Your task to perform on an android device: change your default location settings in chrome Image 0: 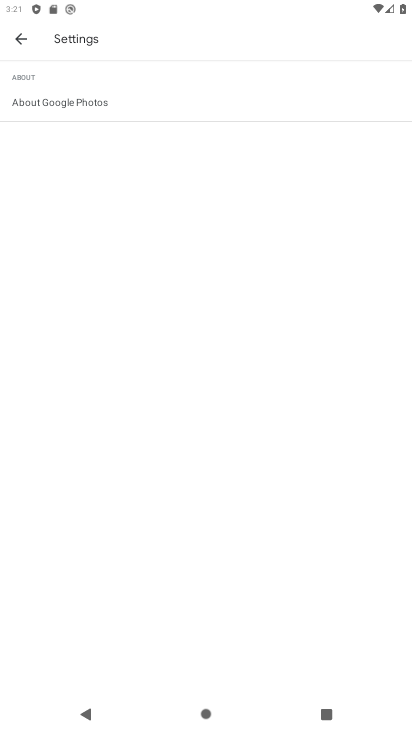
Step 0: press home button
Your task to perform on an android device: change your default location settings in chrome Image 1: 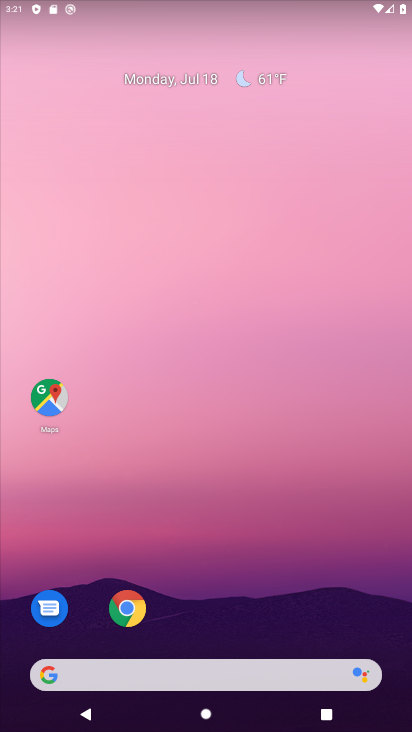
Step 1: drag from (294, 627) to (245, 92)
Your task to perform on an android device: change your default location settings in chrome Image 2: 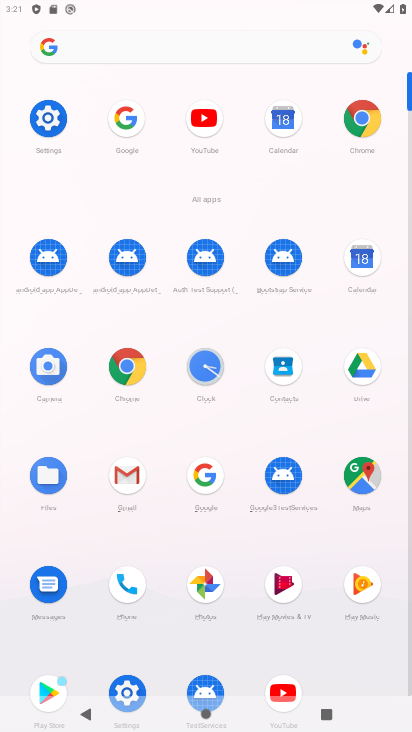
Step 2: click (124, 367)
Your task to perform on an android device: change your default location settings in chrome Image 3: 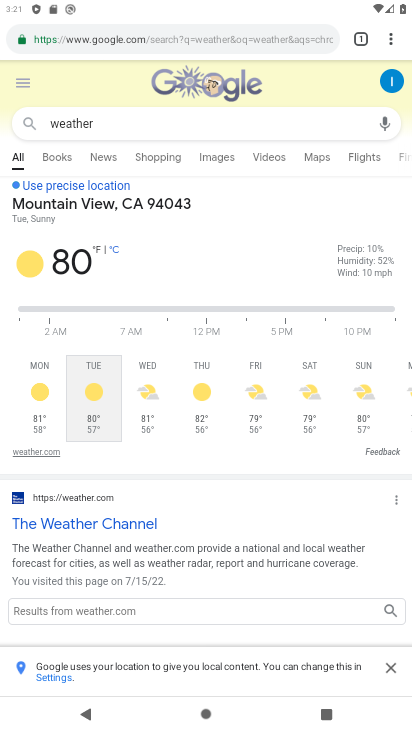
Step 3: drag from (392, 33) to (249, 428)
Your task to perform on an android device: change your default location settings in chrome Image 4: 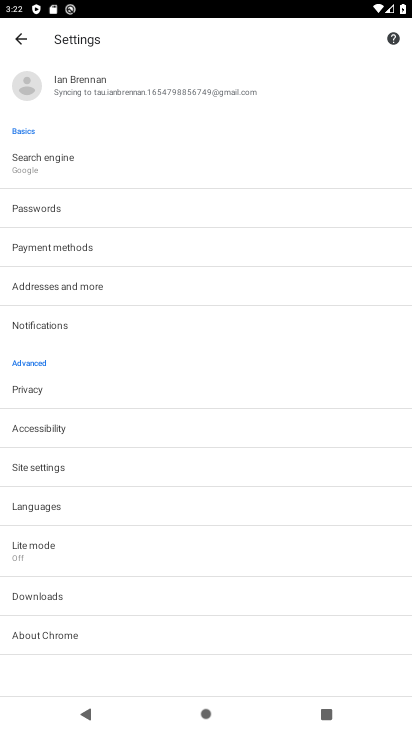
Step 4: click (50, 476)
Your task to perform on an android device: change your default location settings in chrome Image 5: 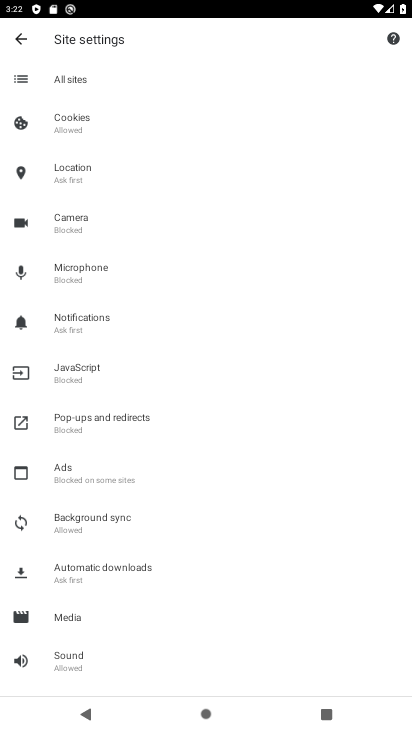
Step 5: click (71, 175)
Your task to perform on an android device: change your default location settings in chrome Image 6: 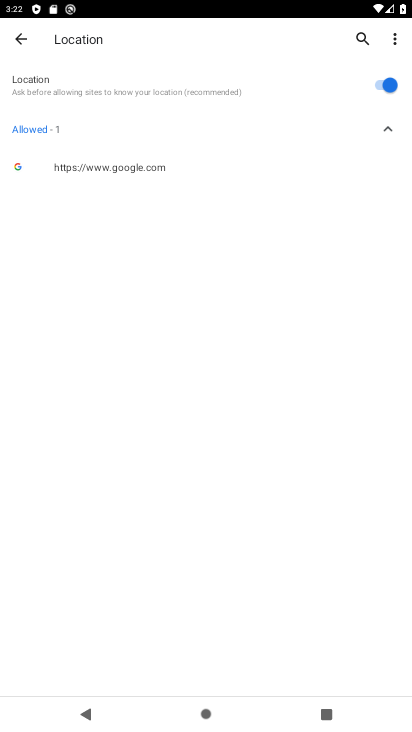
Step 6: click (375, 87)
Your task to perform on an android device: change your default location settings in chrome Image 7: 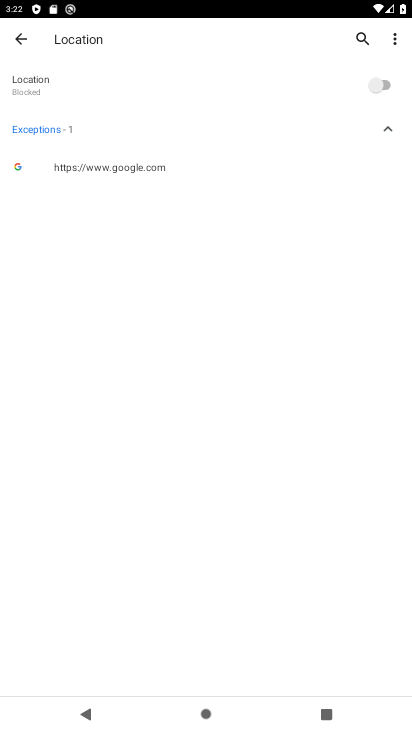
Step 7: task complete